Your task to perform on an android device: toggle improve location accuracy Image 0: 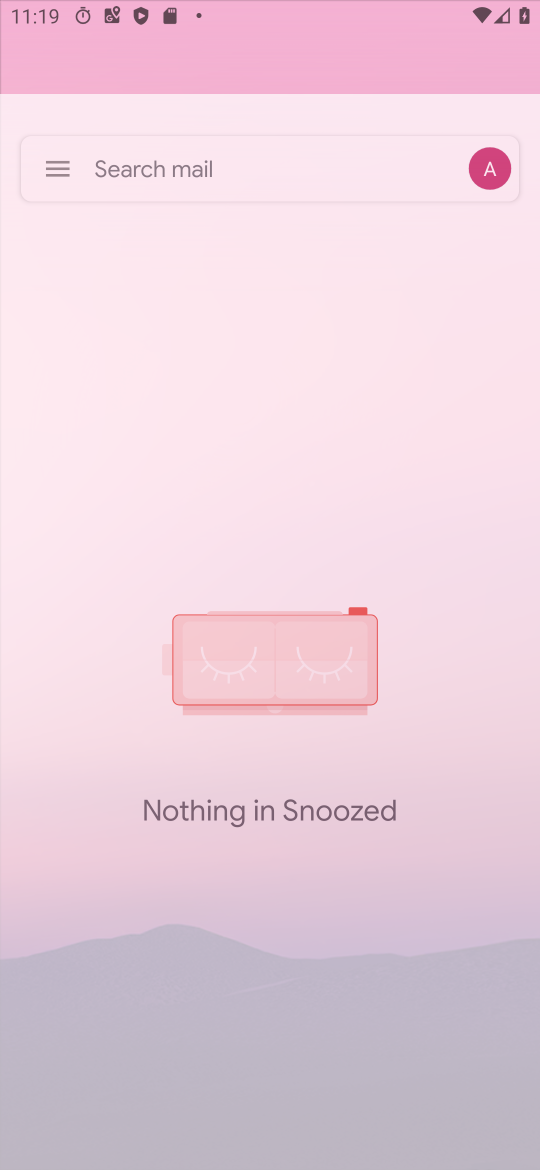
Step 0: press back button
Your task to perform on an android device: toggle improve location accuracy Image 1: 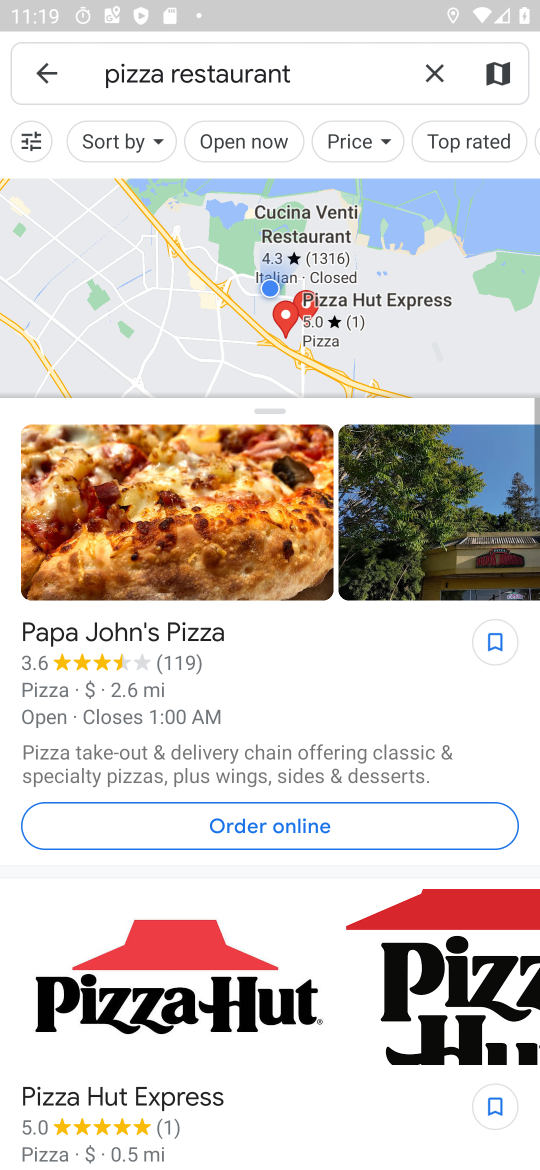
Step 1: press home button
Your task to perform on an android device: toggle improve location accuracy Image 2: 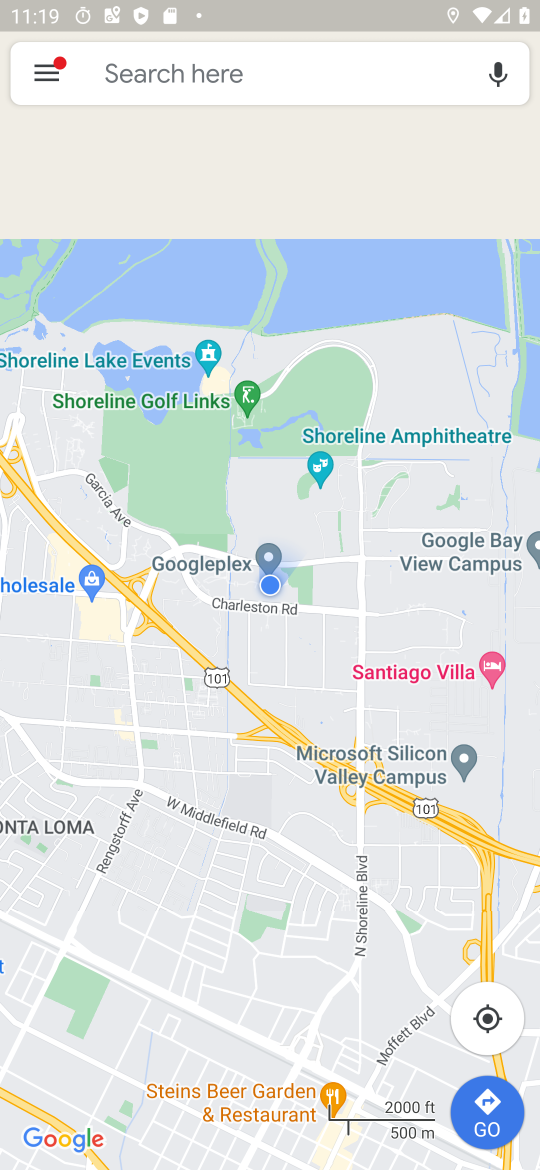
Step 2: press back button
Your task to perform on an android device: toggle improve location accuracy Image 3: 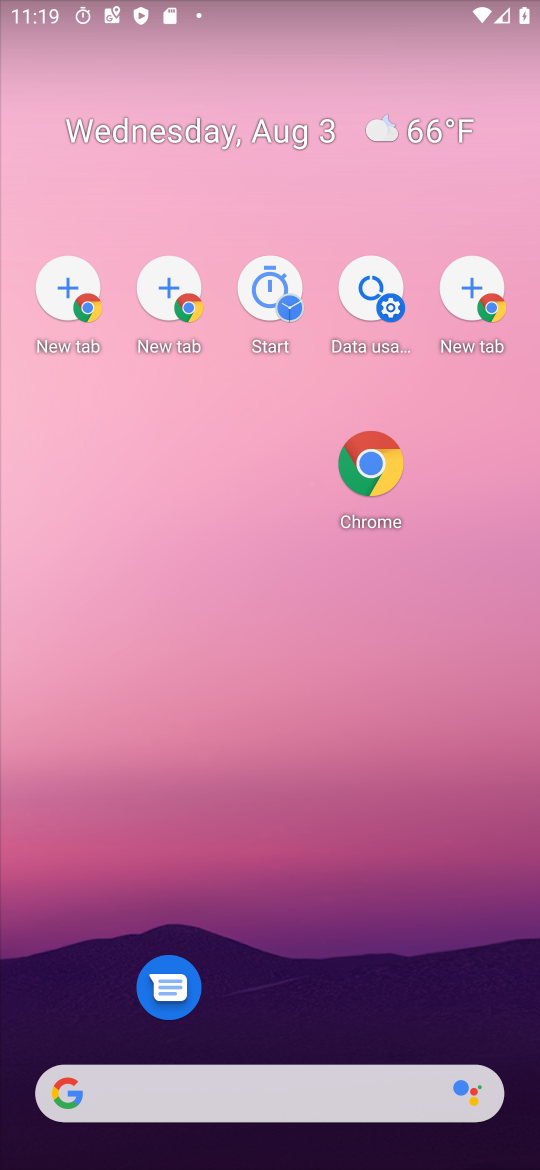
Step 3: press back button
Your task to perform on an android device: toggle improve location accuracy Image 4: 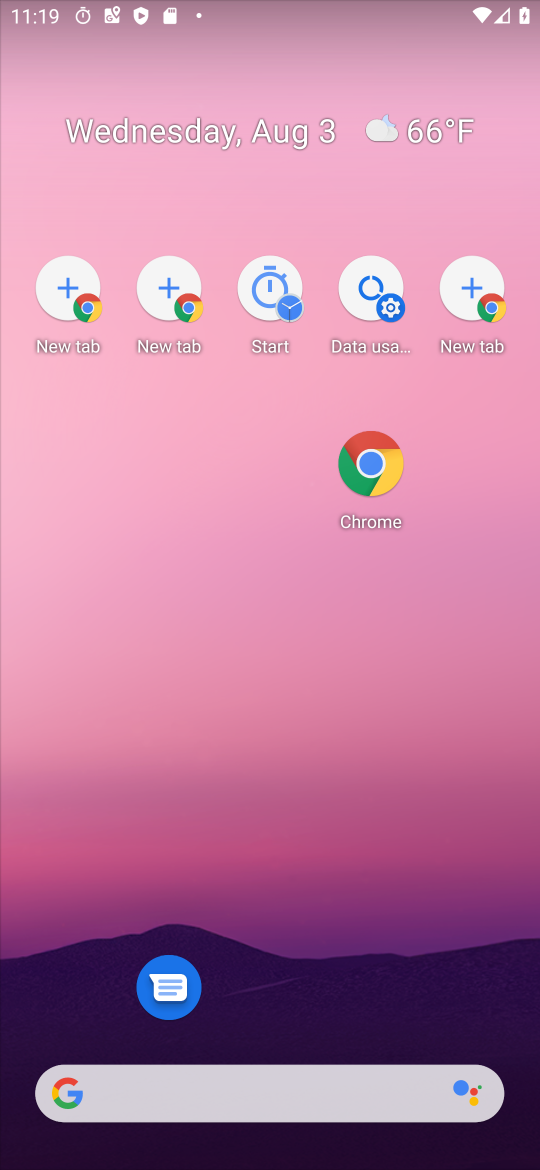
Step 4: drag from (312, 1043) to (245, 373)
Your task to perform on an android device: toggle improve location accuracy Image 5: 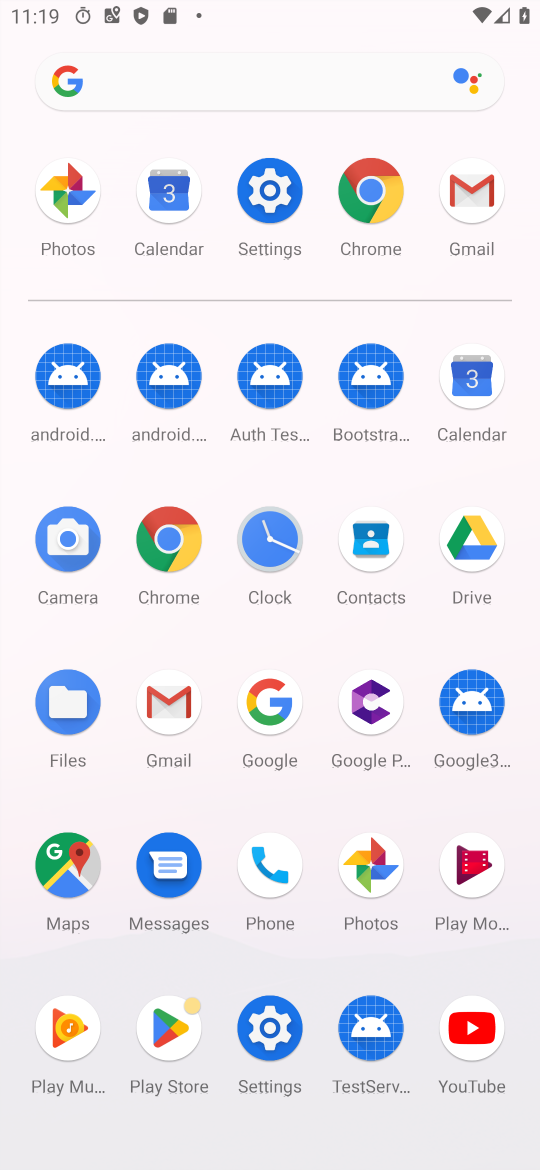
Step 5: click (271, 192)
Your task to perform on an android device: toggle improve location accuracy Image 6: 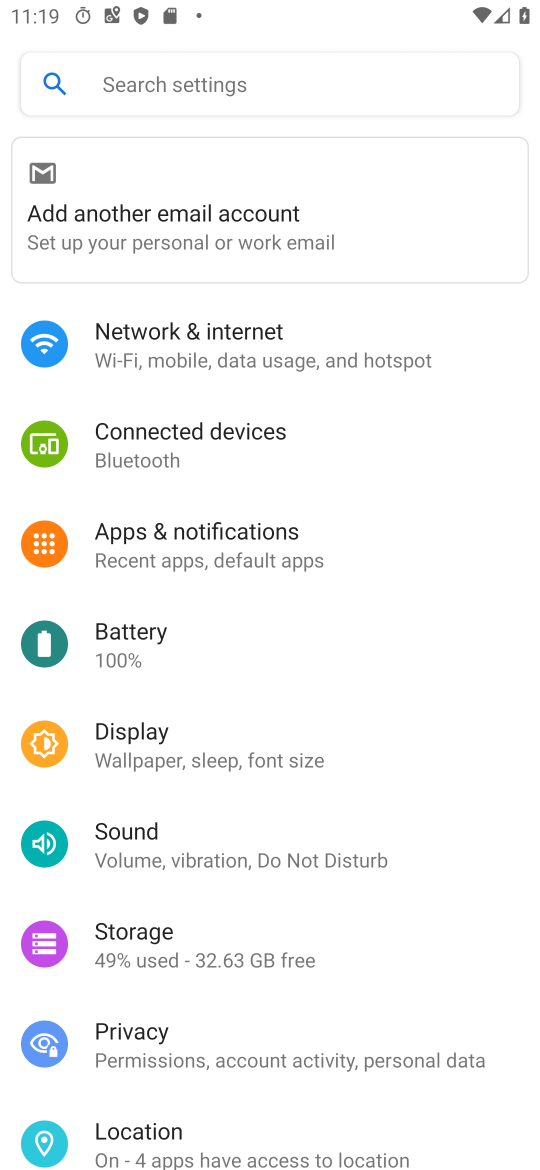
Step 6: drag from (175, 1039) to (252, 636)
Your task to perform on an android device: toggle improve location accuracy Image 7: 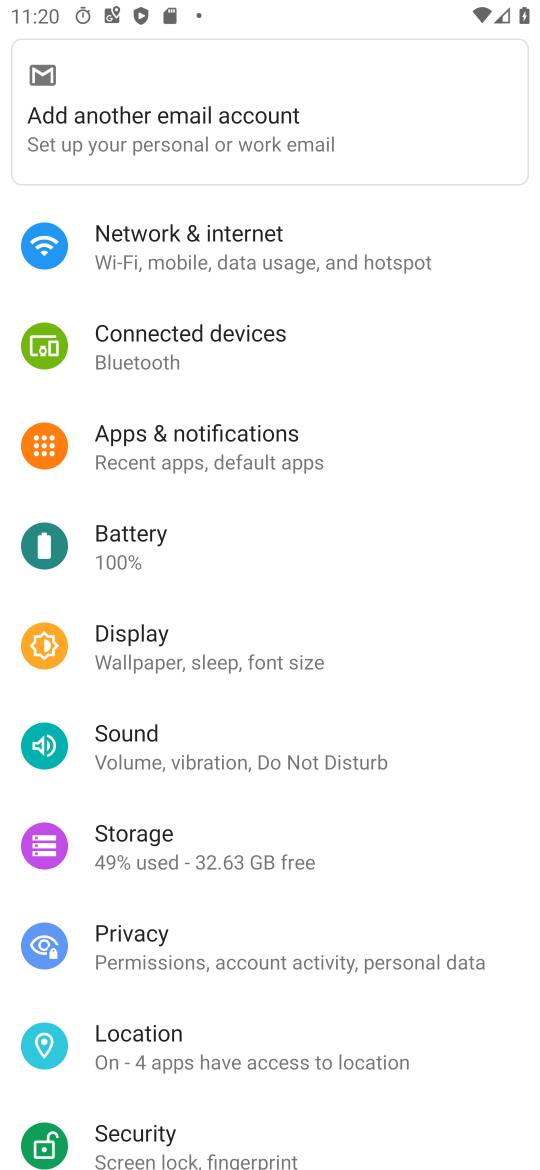
Step 7: click (185, 1046)
Your task to perform on an android device: toggle improve location accuracy Image 8: 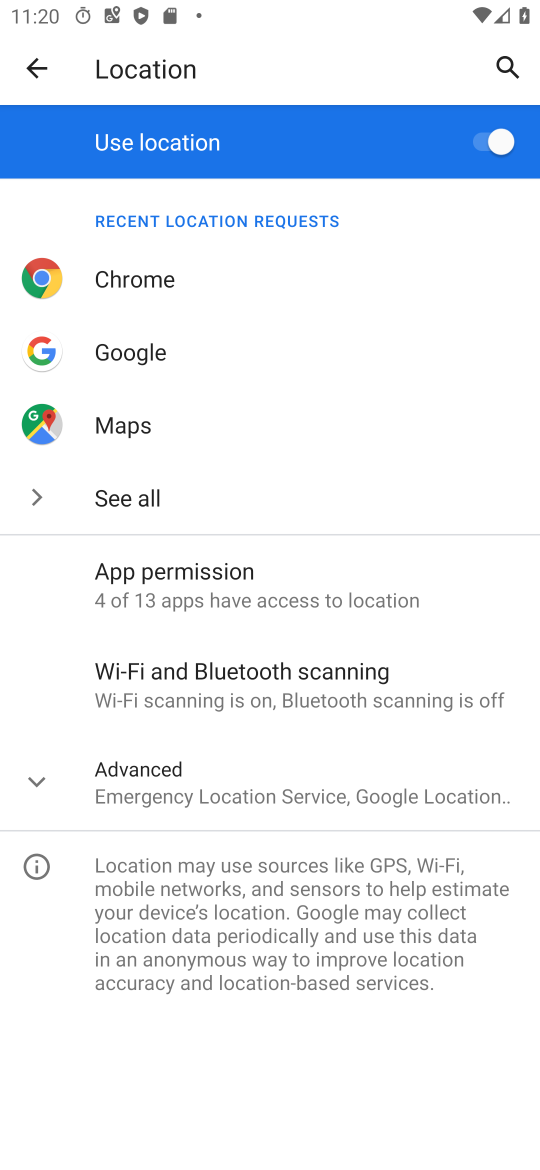
Step 8: click (161, 775)
Your task to perform on an android device: toggle improve location accuracy Image 9: 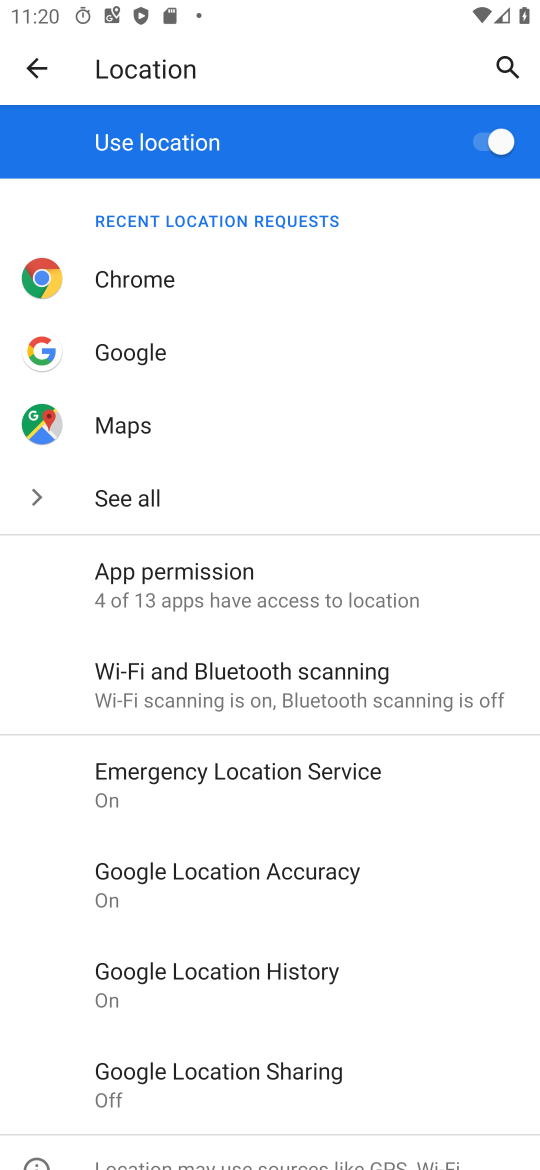
Step 9: click (293, 851)
Your task to perform on an android device: toggle improve location accuracy Image 10: 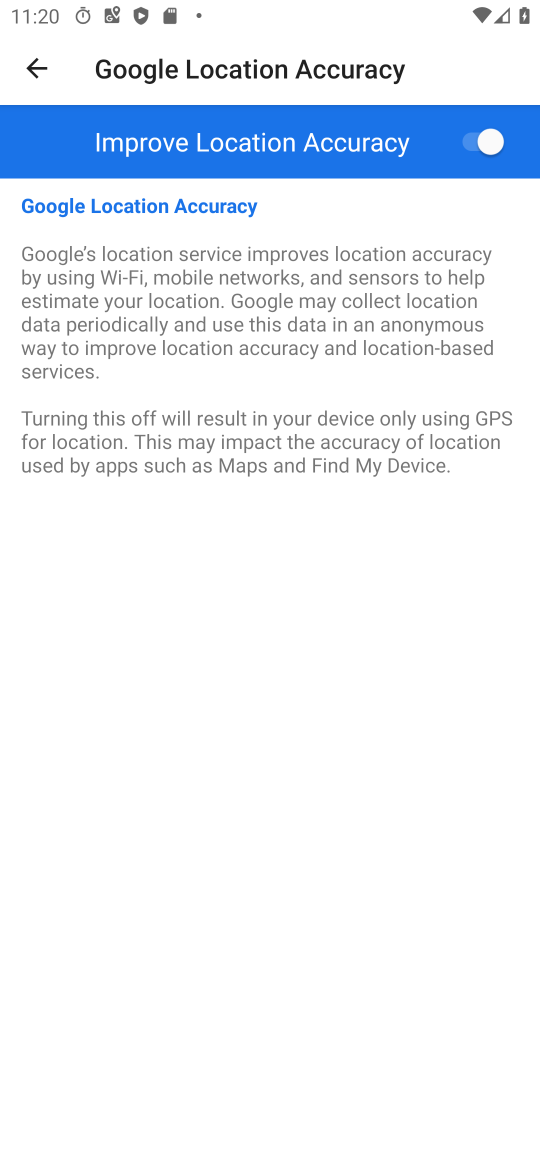
Step 10: task complete